Your task to perform on an android device: See recent photos Image 0: 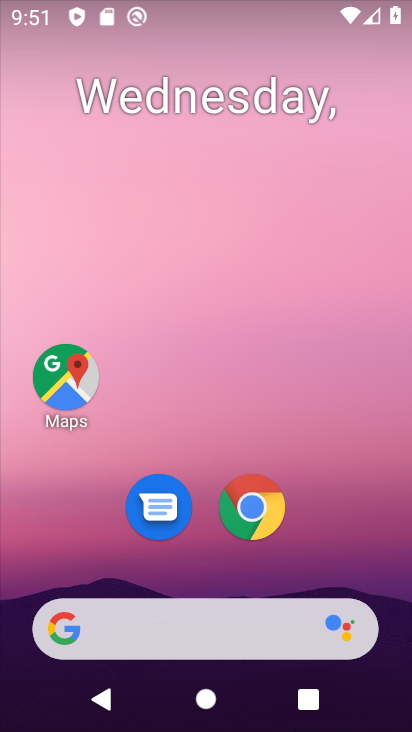
Step 0: drag from (288, 614) to (250, 174)
Your task to perform on an android device: See recent photos Image 1: 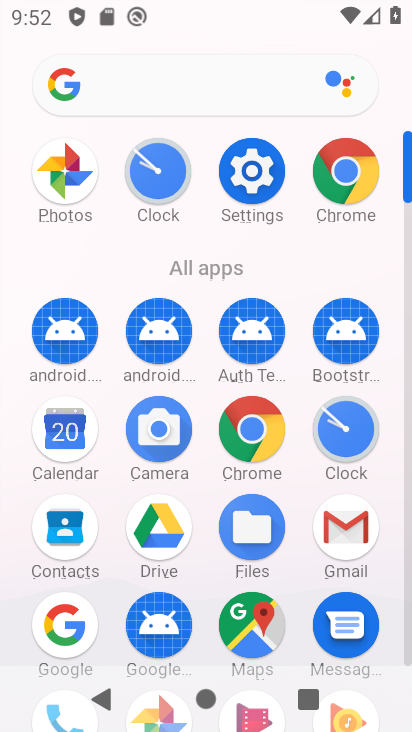
Step 1: click (47, 175)
Your task to perform on an android device: See recent photos Image 2: 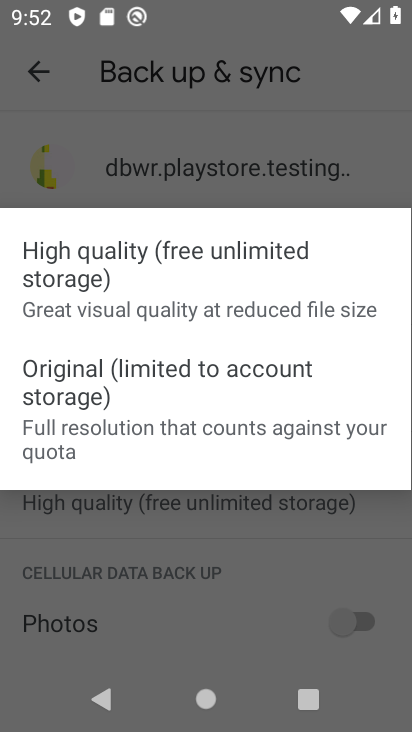
Step 2: click (108, 692)
Your task to perform on an android device: See recent photos Image 3: 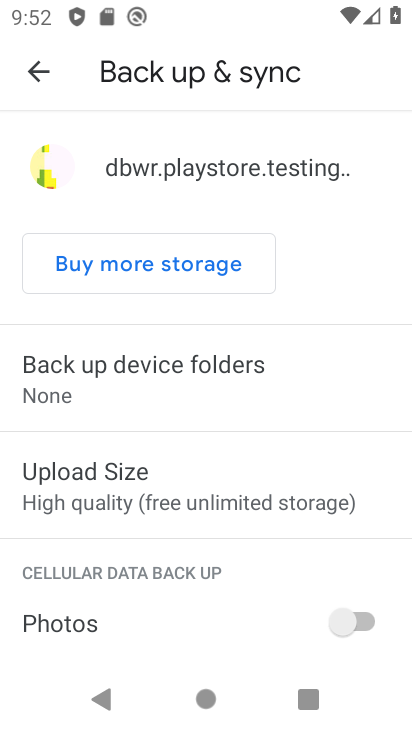
Step 3: drag from (153, 558) to (147, 358)
Your task to perform on an android device: See recent photos Image 4: 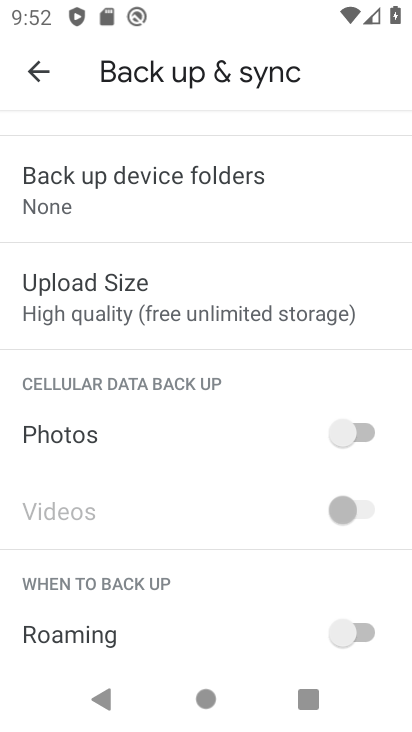
Step 4: click (46, 64)
Your task to perform on an android device: See recent photos Image 5: 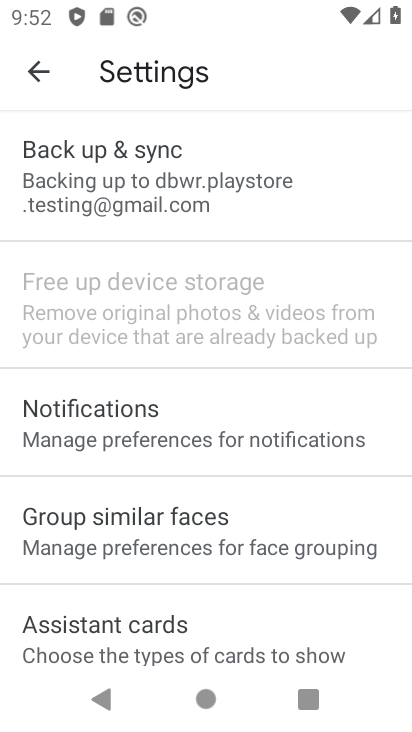
Step 5: click (46, 64)
Your task to perform on an android device: See recent photos Image 6: 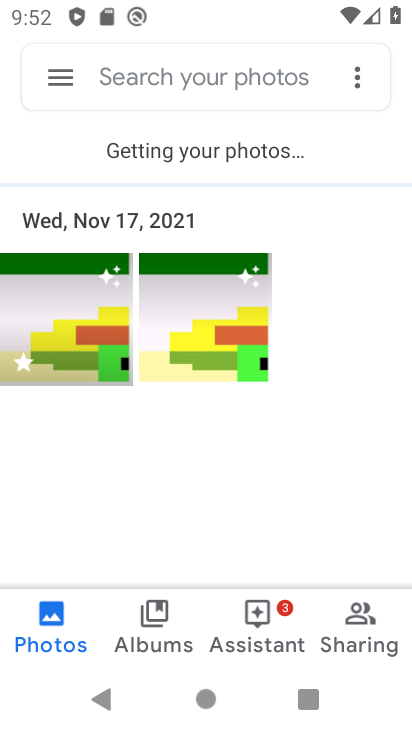
Step 6: task complete